Your task to perform on an android device: Open calendar and show me the first week of next month Image 0: 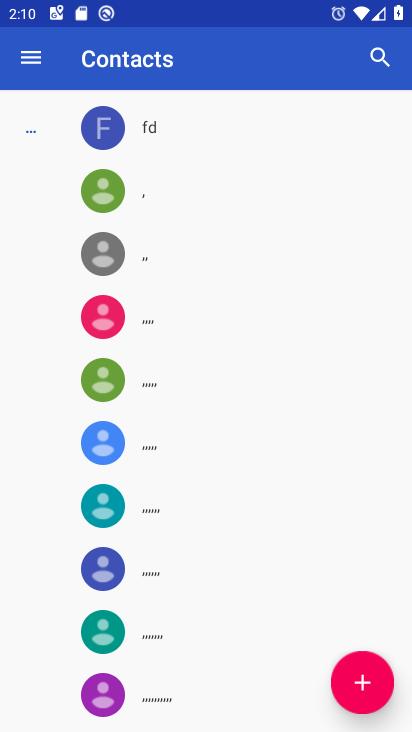
Step 0: press home button
Your task to perform on an android device: Open calendar and show me the first week of next month Image 1: 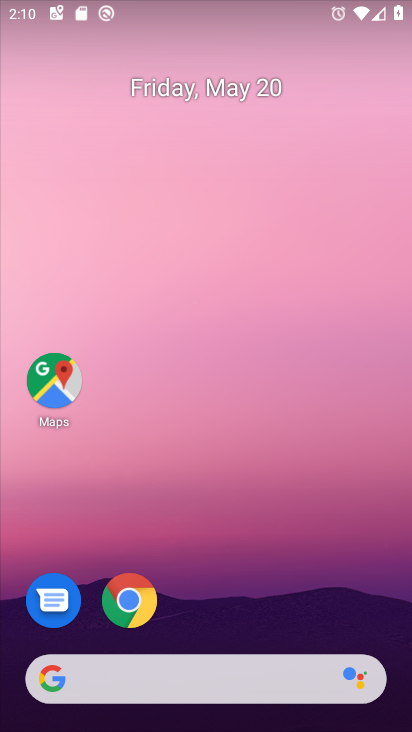
Step 1: drag from (251, 607) to (257, 53)
Your task to perform on an android device: Open calendar and show me the first week of next month Image 2: 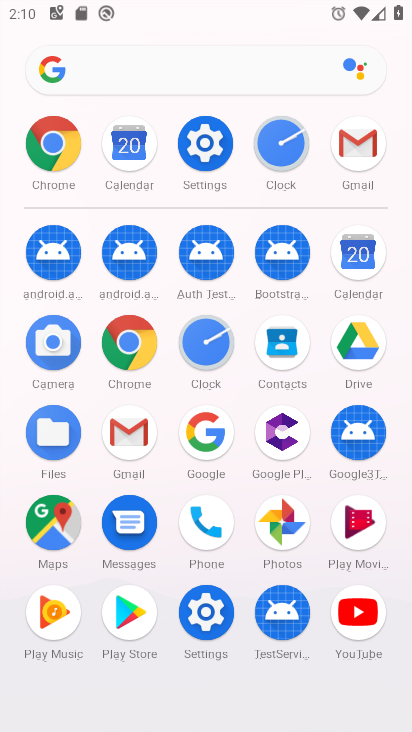
Step 2: click (362, 251)
Your task to perform on an android device: Open calendar and show me the first week of next month Image 3: 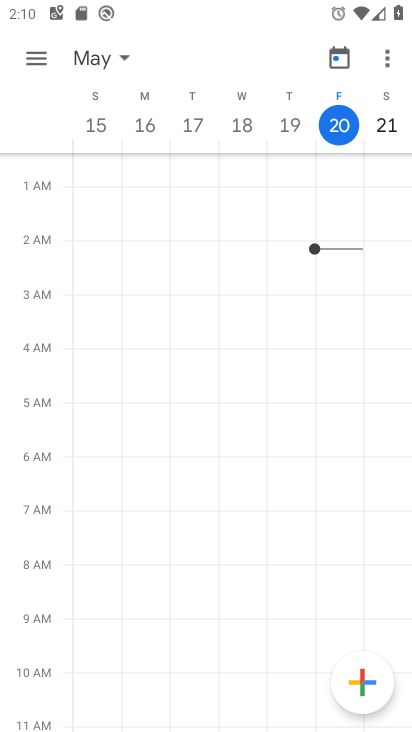
Step 3: task complete